Your task to perform on an android device: install app "File Manager" Image 0: 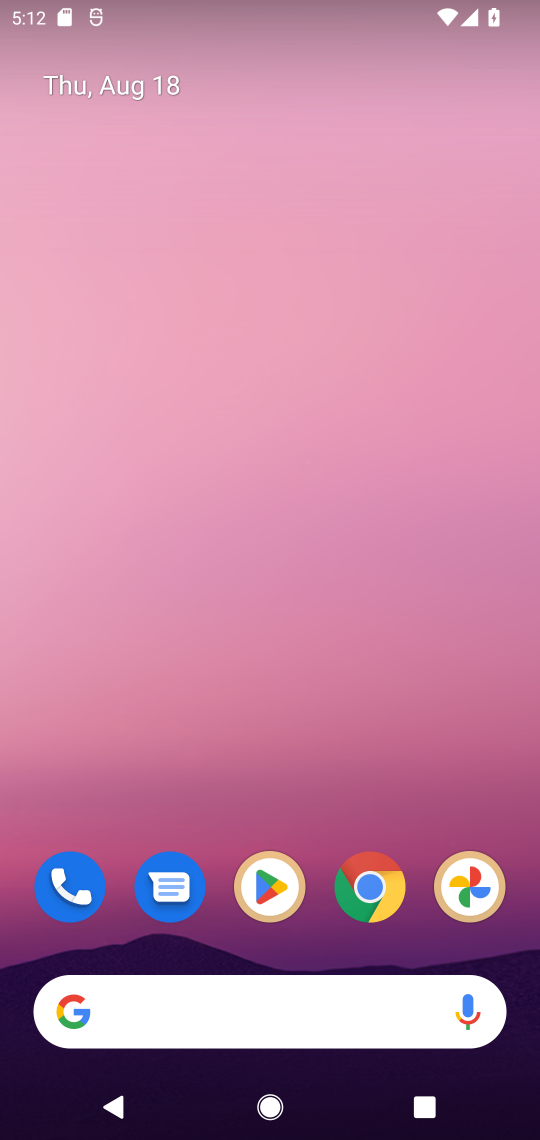
Step 0: drag from (321, 853) to (334, 57)
Your task to perform on an android device: install app "File Manager" Image 1: 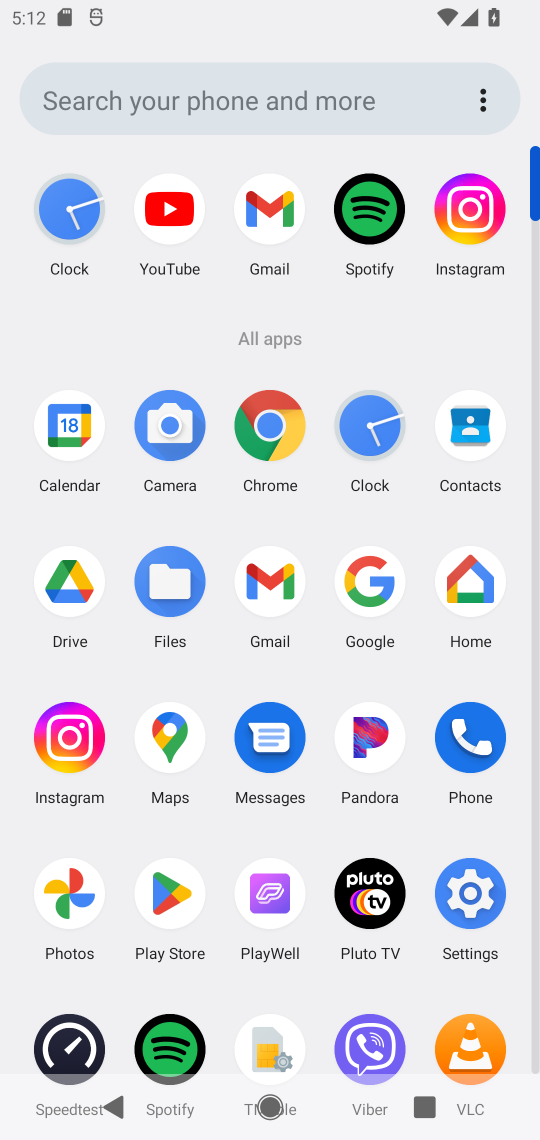
Step 1: click (157, 884)
Your task to perform on an android device: install app "File Manager" Image 2: 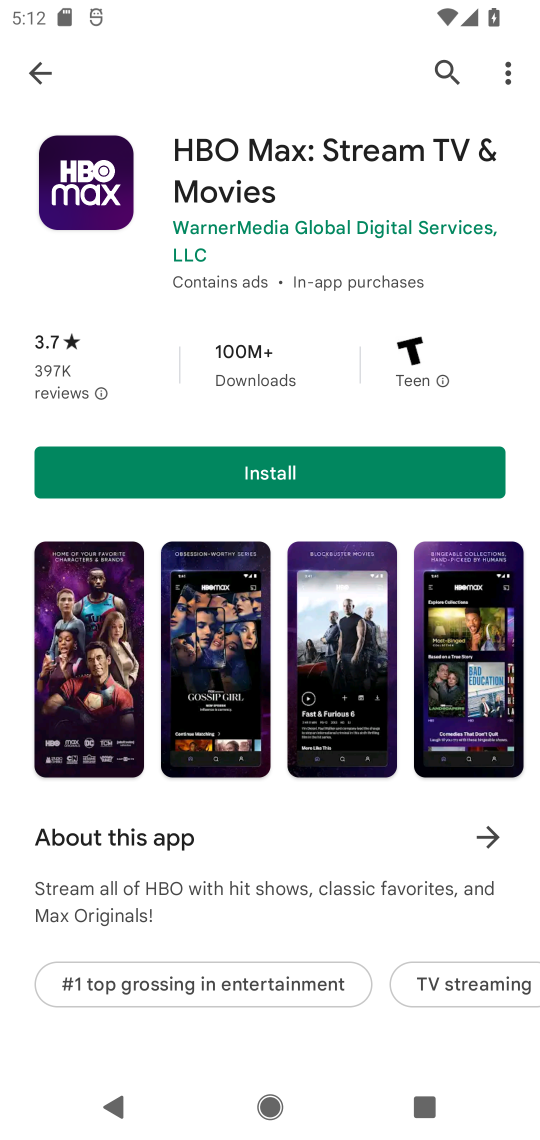
Step 2: click (154, 884)
Your task to perform on an android device: install app "File Manager" Image 3: 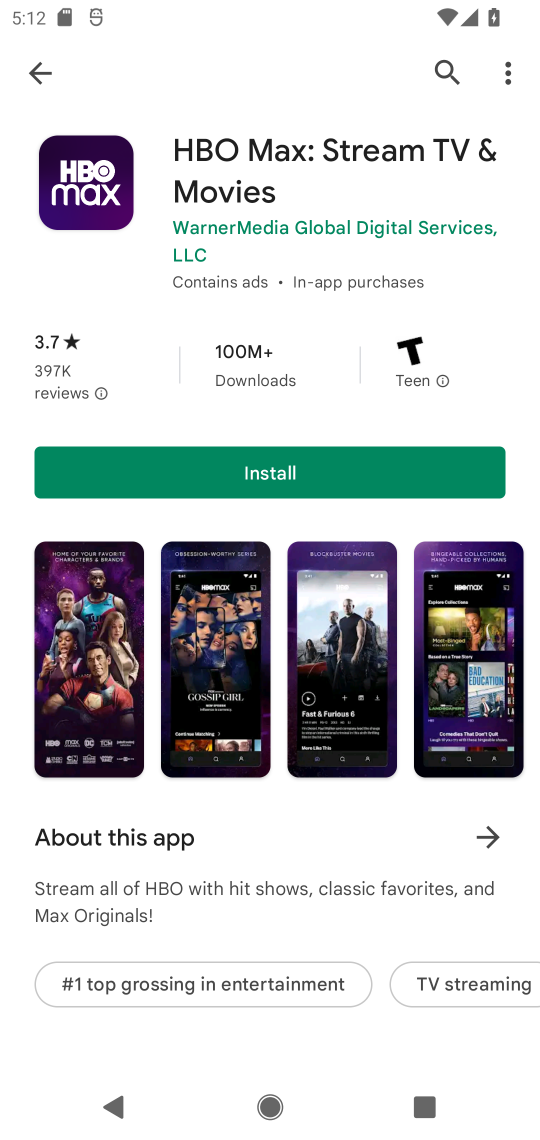
Step 3: click (440, 76)
Your task to perform on an android device: install app "File Manager" Image 4: 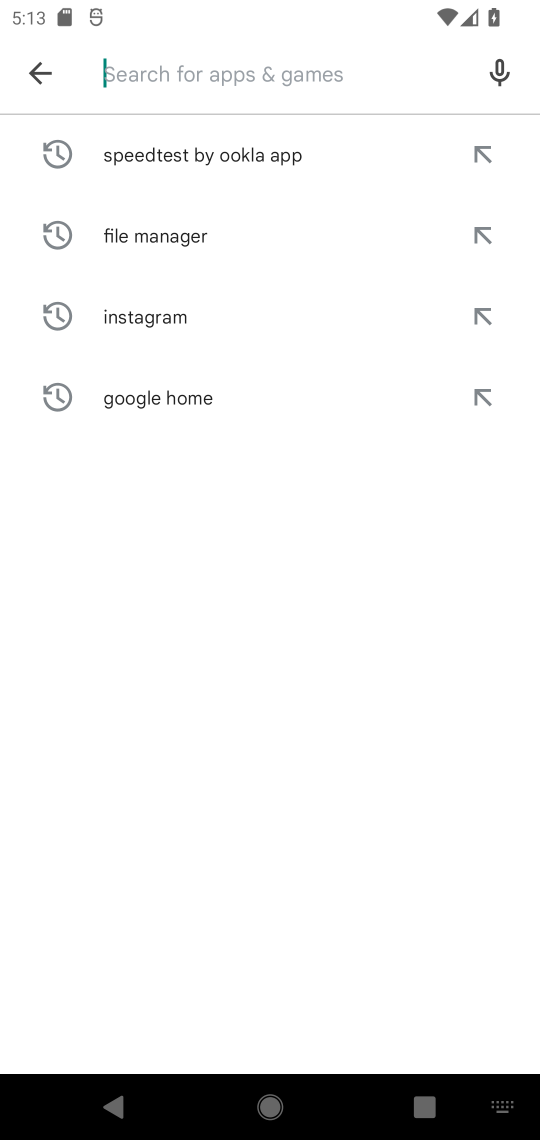
Step 4: type "File Maneger"
Your task to perform on an android device: install app "File Manager" Image 5: 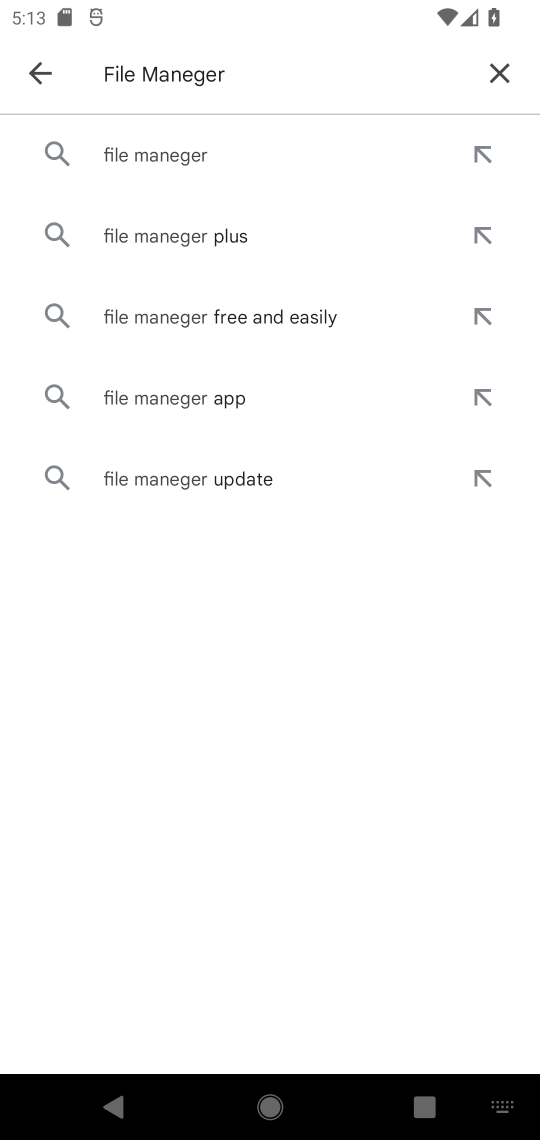
Step 5: click (184, 155)
Your task to perform on an android device: install app "File Manager" Image 6: 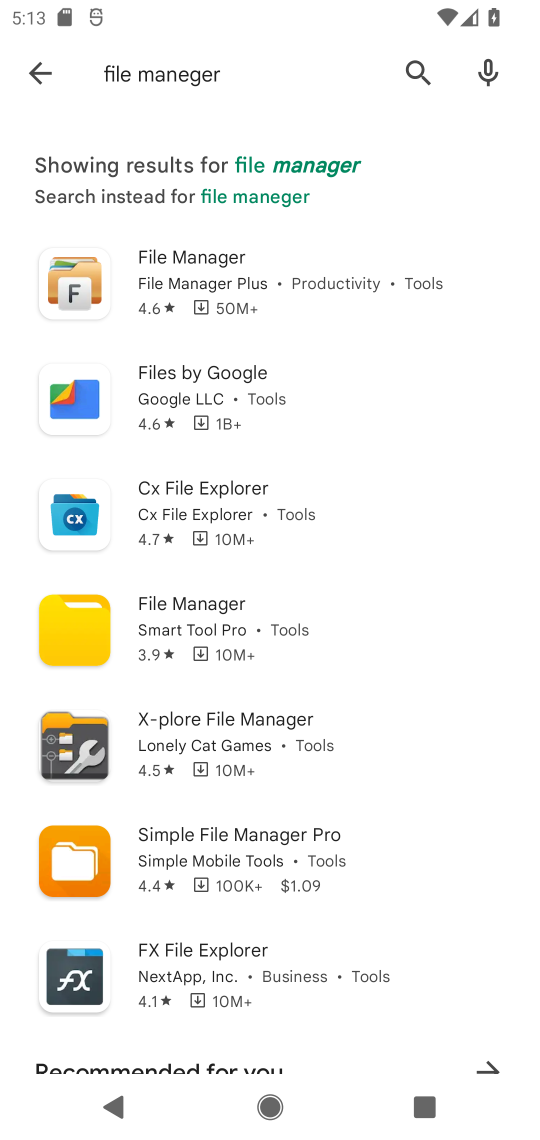
Step 6: click (204, 267)
Your task to perform on an android device: install app "File Manager" Image 7: 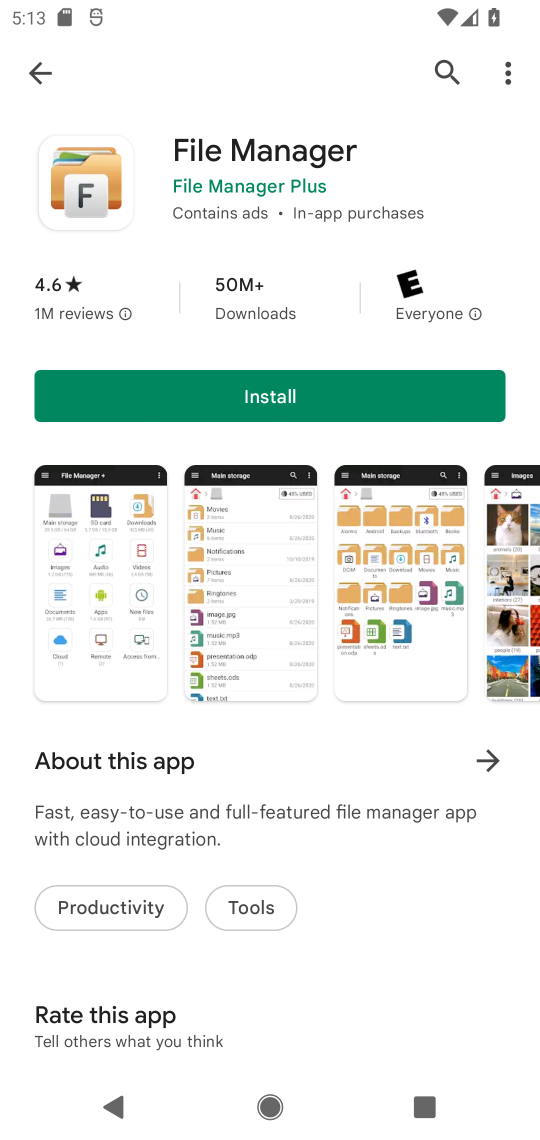
Step 7: click (269, 396)
Your task to perform on an android device: install app "File Manager" Image 8: 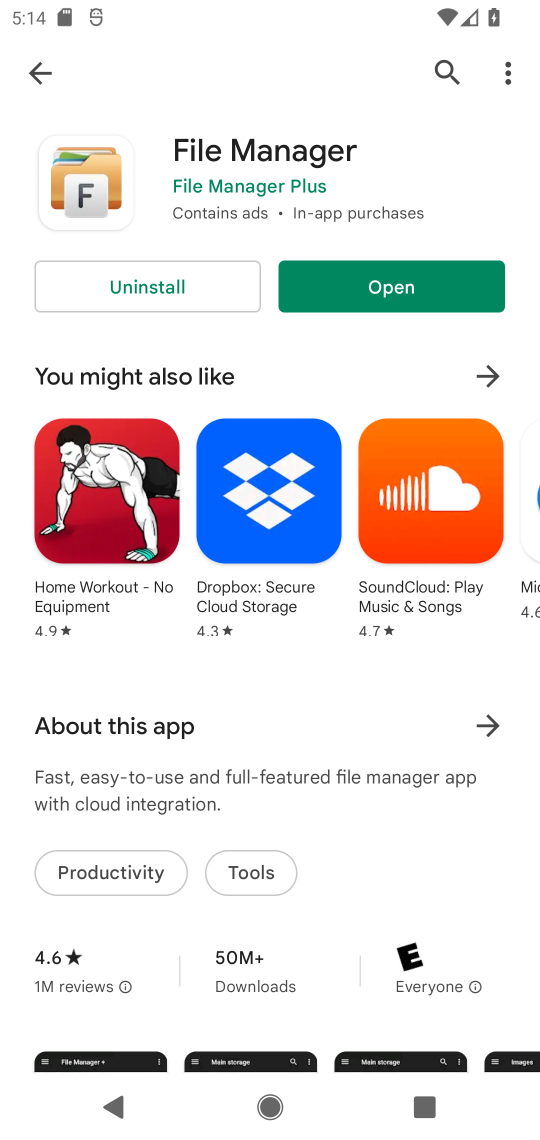
Step 8: task complete